Your task to perform on an android device: check google app version Image 0: 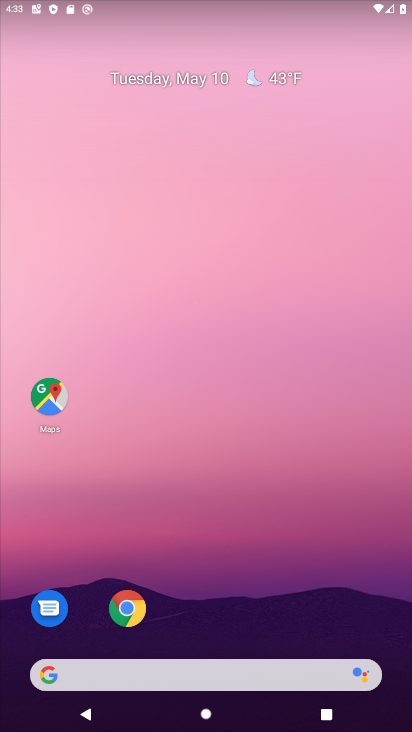
Step 0: drag from (183, 583) to (268, 56)
Your task to perform on an android device: check google app version Image 1: 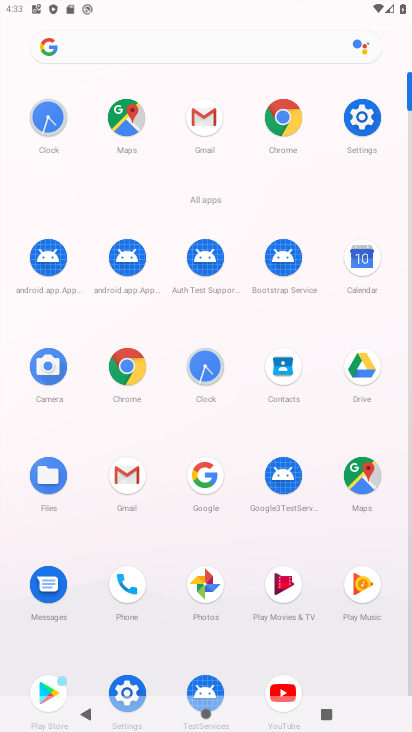
Step 1: click (200, 482)
Your task to perform on an android device: check google app version Image 2: 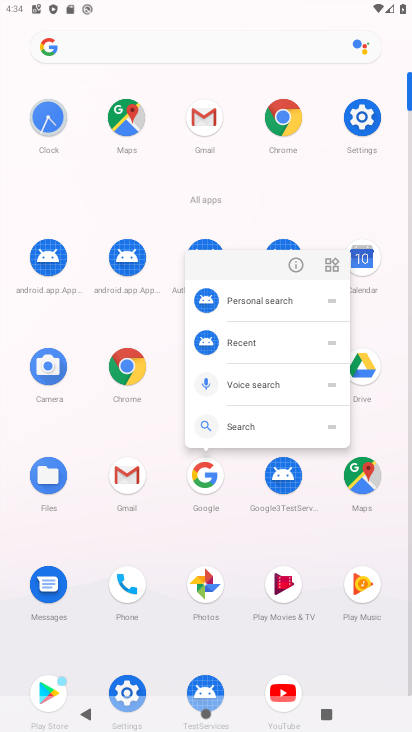
Step 2: click (296, 265)
Your task to perform on an android device: check google app version Image 3: 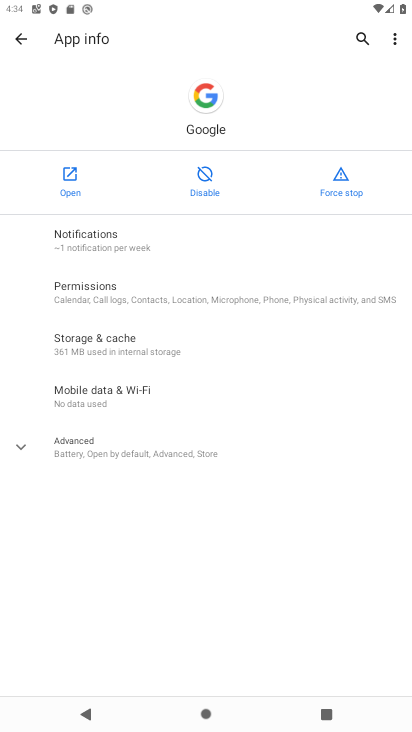
Step 3: click (103, 445)
Your task to perform on an android device: check google app version Image 4: 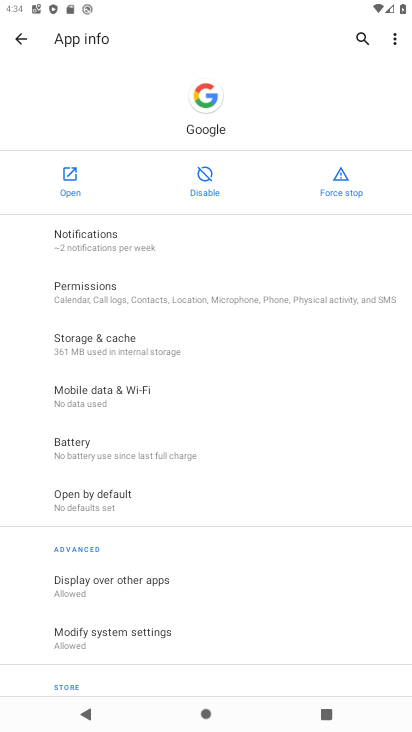
Step 4: task complete